Your task to perform on an android device: Is it going to rain tomorrow? Image 0: 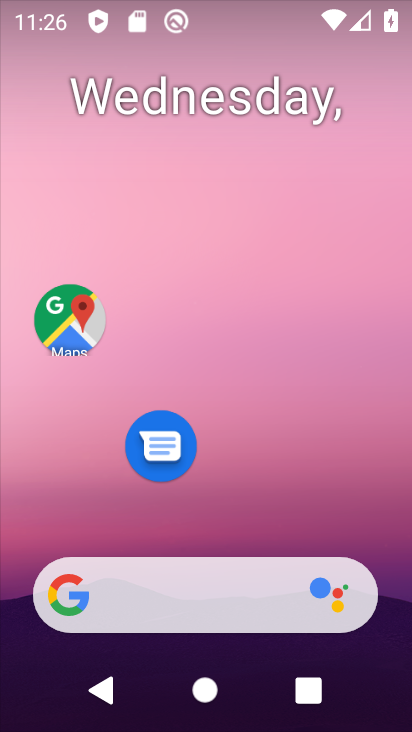
Step 0: drag from (264, 450) to (213, 77)
Your task to perform on an android device: Is it going to rain tomorrow? Image 1: 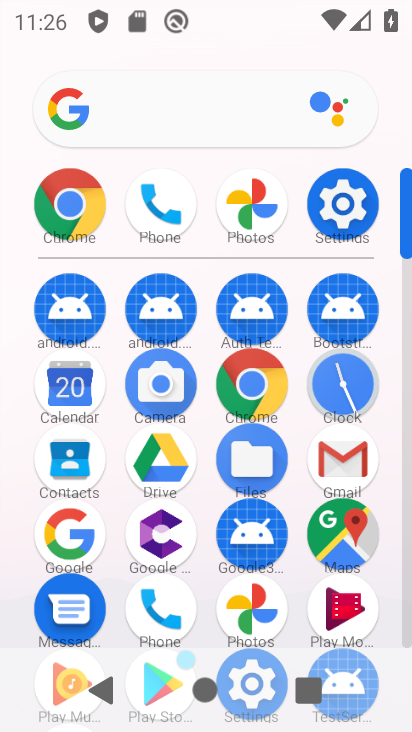
Step 1: click (255, 394)
Your task to perform on an android device: Is it going to rain tomorrow? Image 2: 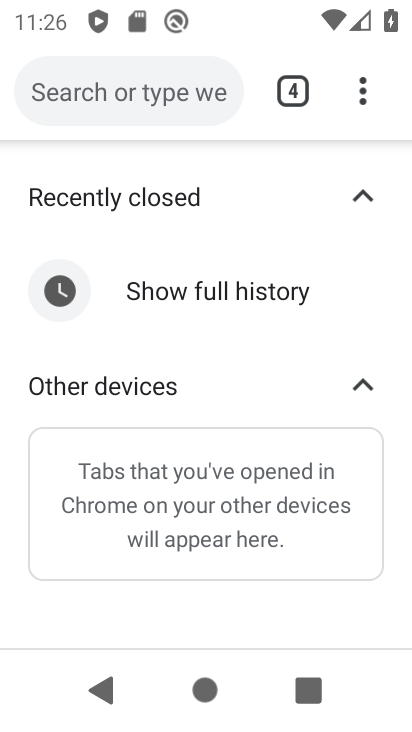
Step 2: click (291, 107)
Your task to perform on an android device: Is it going to rain tomorrow? Image 3: 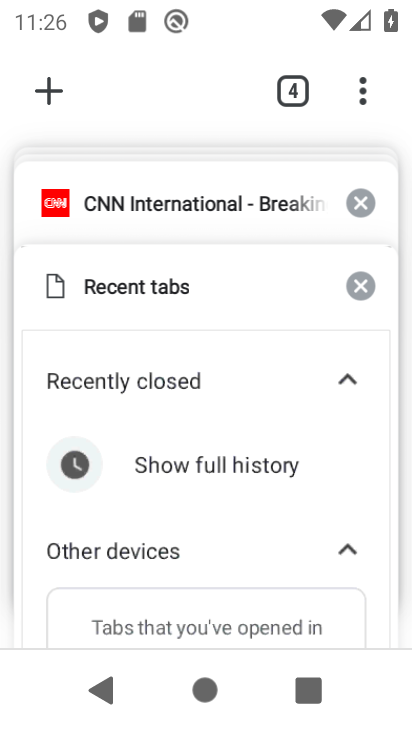
Step 3: click (42, 90)
Your task to perform on an android device: Is it going to rain tomorrow? Image 4: 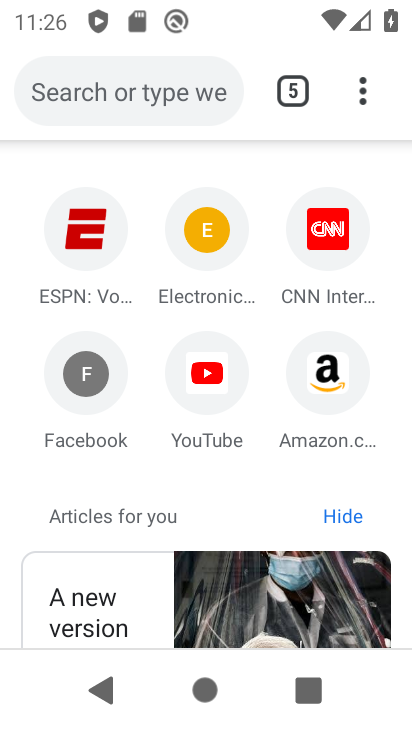
Step 4: drag from (203, 200) to (128, 99)
Your task to perform on an android device: Is it going to rain tomorrow? Image 5: 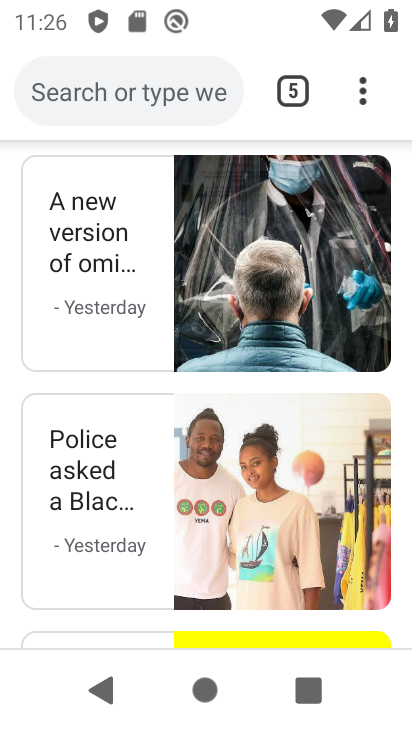
Step 5: click (99, 92)
Your task to perform on an android device: Is it going to rain tomorrow? Image 6: 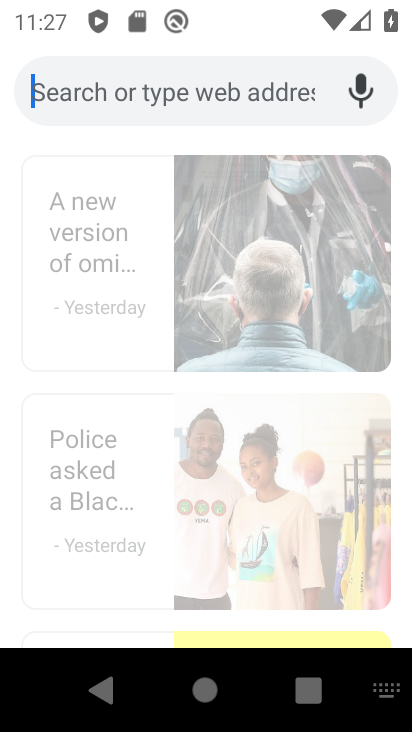
Step 6: type "is it going to rain tomorrow"
Your task to perform on an android device: Is it going to rain tomorrow? Image 7: 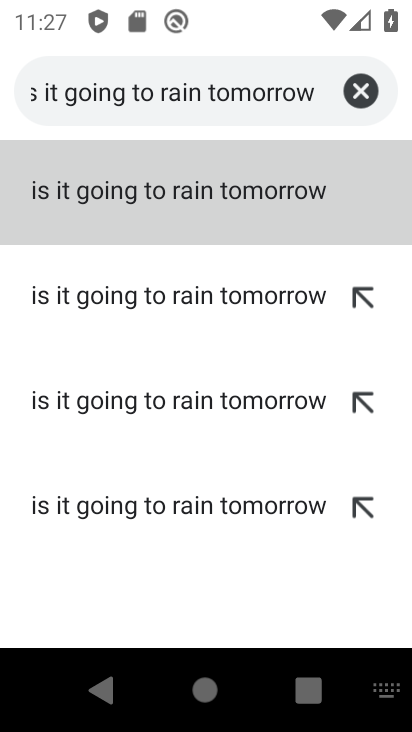
Step 7: click (123, 197)
Your task to perform on an android device: Is it going to rain tomorrow? Image 8: 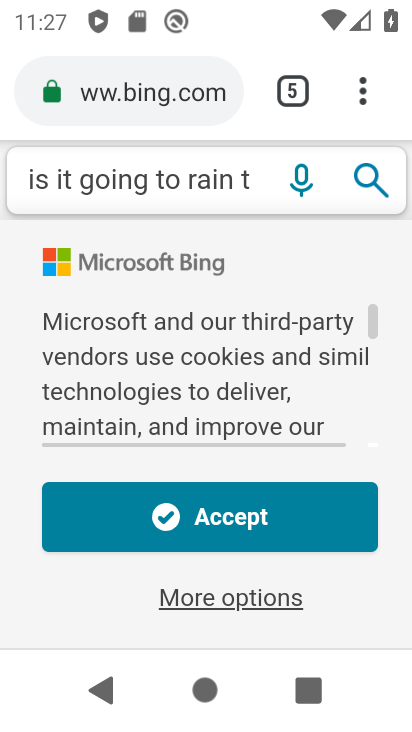
Step 8: click (233, 524)
Your task to perform on an android device: Is it going to rain tomorrow? Image 9: 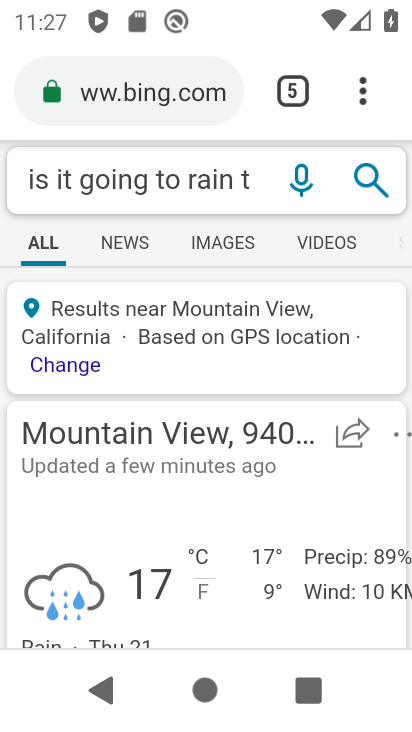
Step 9: task complete